Your task to perform on an android device: choose inbox layout in the gmail app Image 0: 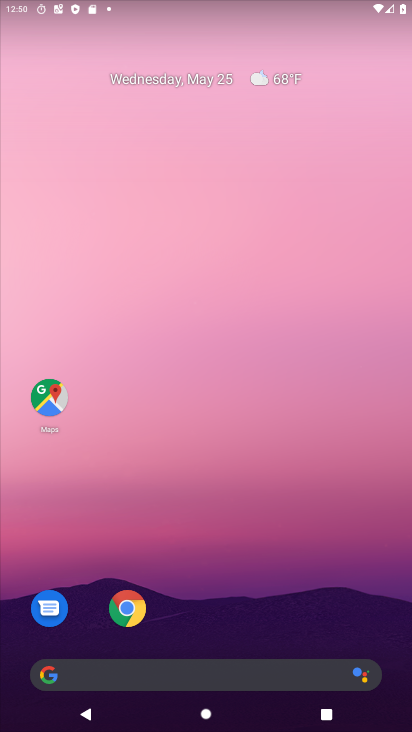
Step 0: drag from (243, 616) to (298, 111)
Your task to perform on an android device: choose inbox layout in the gmail app Image 1: 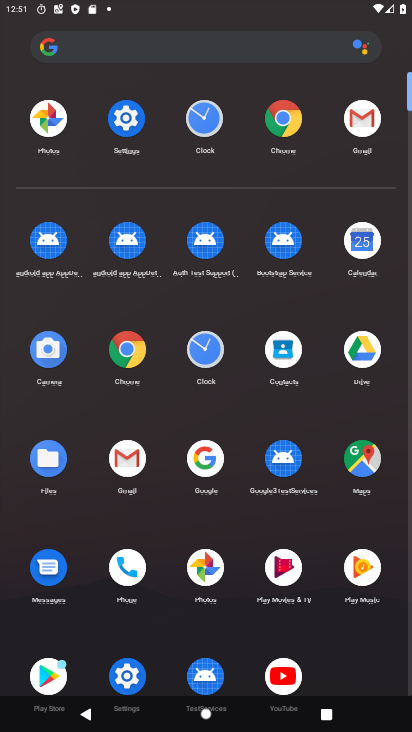
Step 1: click (353, 137)
Your task to perform on an android device: choose inbox layout in the gmail app Image 2: 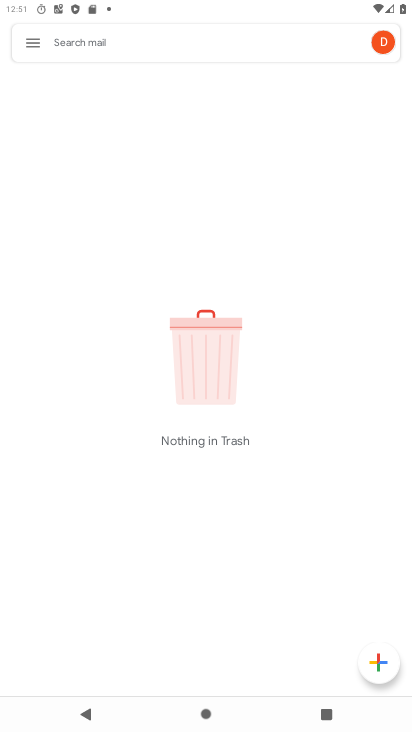
Step 2: click (38, 48)
Your task to perform on an android device: choose inbox layout in the gmail app Image 3: 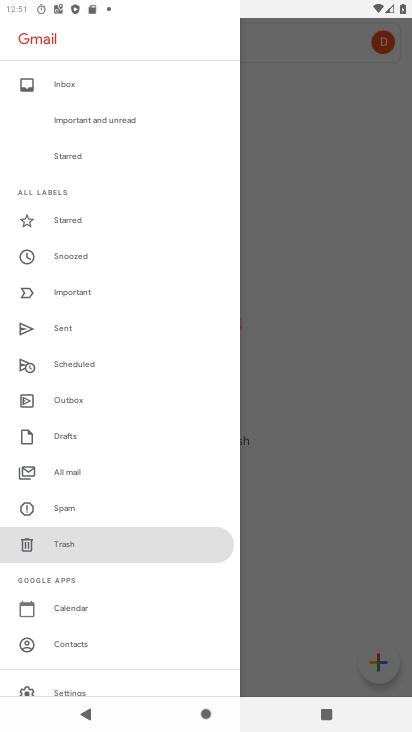
Step 3: click (95, 688)
Your task to perform on an android device: choose inbox layout in the gmail app Image 4: 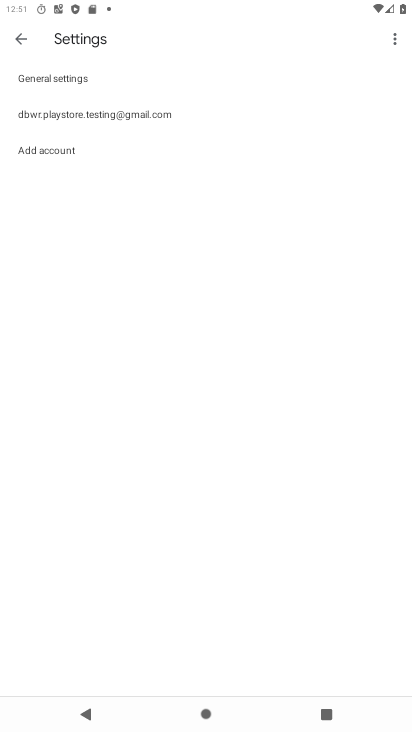
Step 4: click (92, 663)
Your task to perform on an android device: choose inbox layout in the gmail app Image 5: 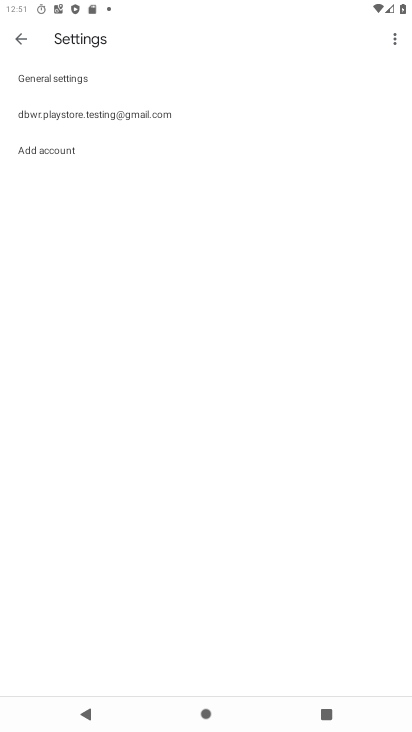
Step 5: click (123, 123)
Your task to perform on an android device: choose inbox layout in the gmail app Image 6: 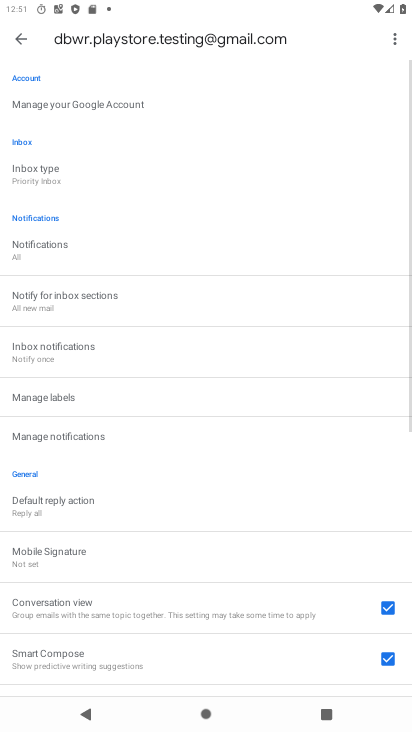
Step 6: click (119, 167)
Your task to perform on an android device: choose inbox layout in the gmail app Image 7: 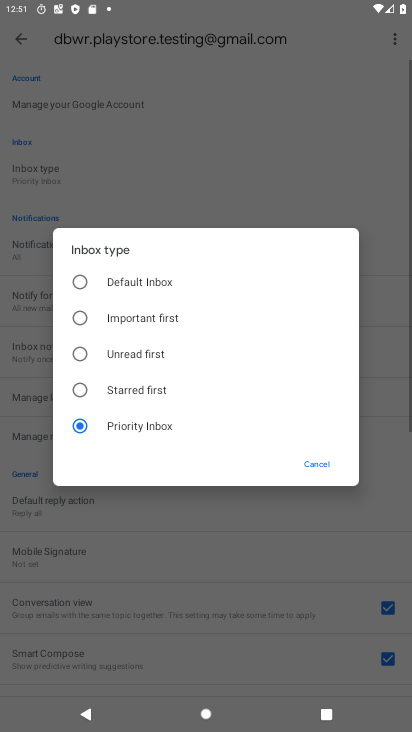
Step 7: click (158, 288)
Your task to perform on an android device: choose inbox layout in the gmail app Image 8: 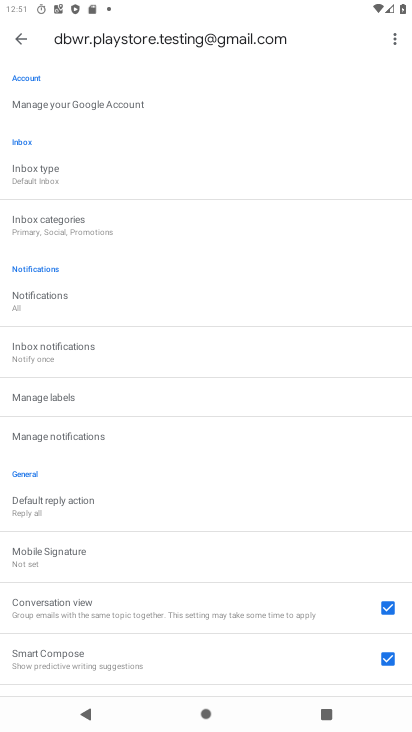
Step 8: task complete